Your task to perform on an android device: see sites visited before in the chrome app Image 0: 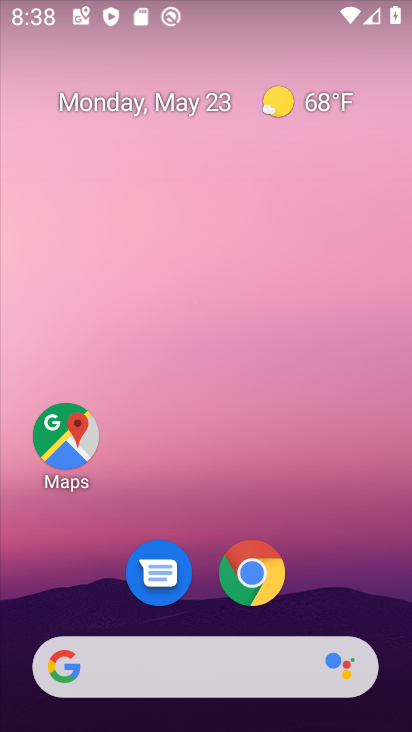
Step 0: click (239, 584)
Your task to perform on an android device: see sites visited before in the chrome app Image 1: 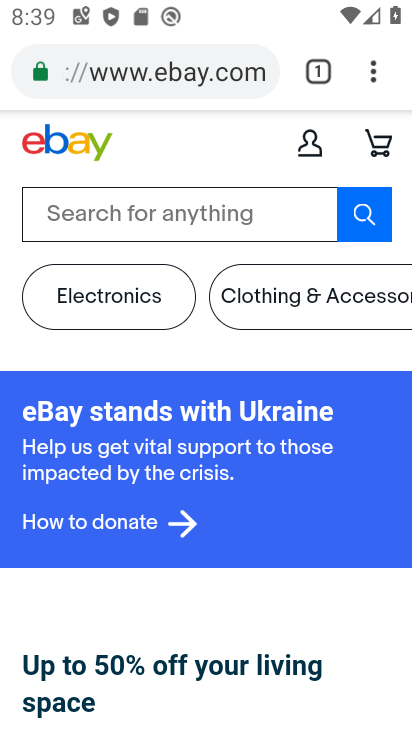
Step 1: click (373, 74)
Your task to perform on an android device: see sites visited before in the chrome app Image 2: 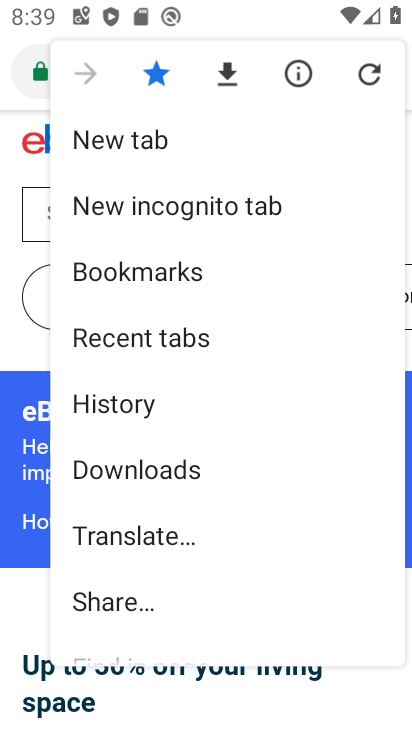
Step 2: click (162, 400)
Your task to perform on an android device: see sites visited before in the chrome app Image 3: 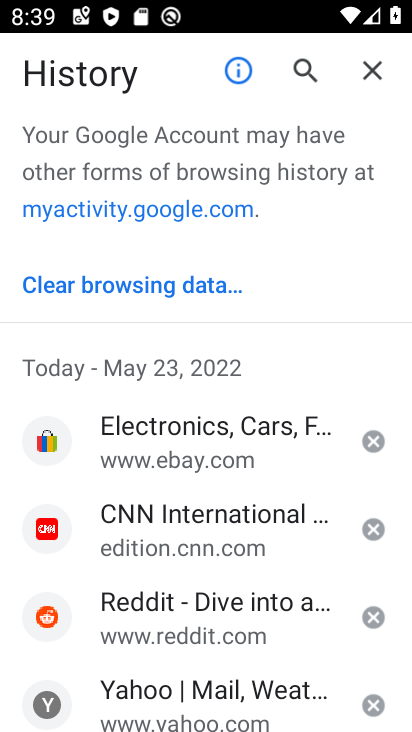
Step 3: task complete